Your task to perform on an android device: open a new tab in the chrome app Image 0: 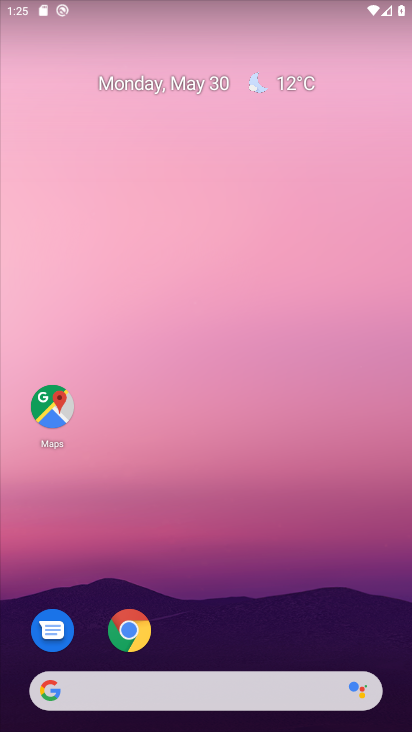
Step 0: click (128, 633)
Your task to perform on an android device: open a new tab in the chrome app Image 1: 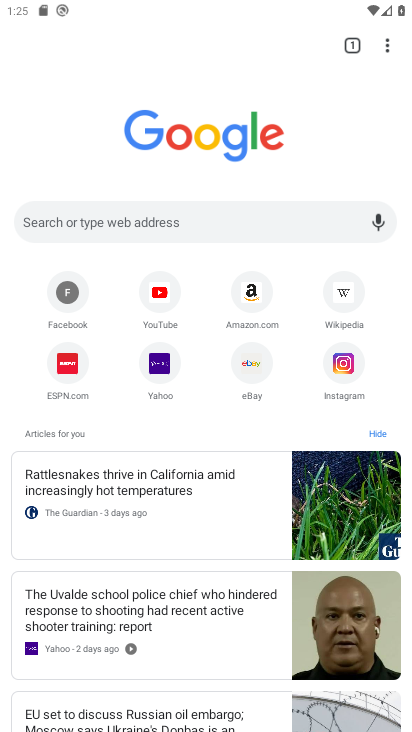
Step 1: task complete